Your task to perform on an android device: Search for "razer nari" on newegg.com, select the first entry, add it to the cart, then select checkout. Image 0: 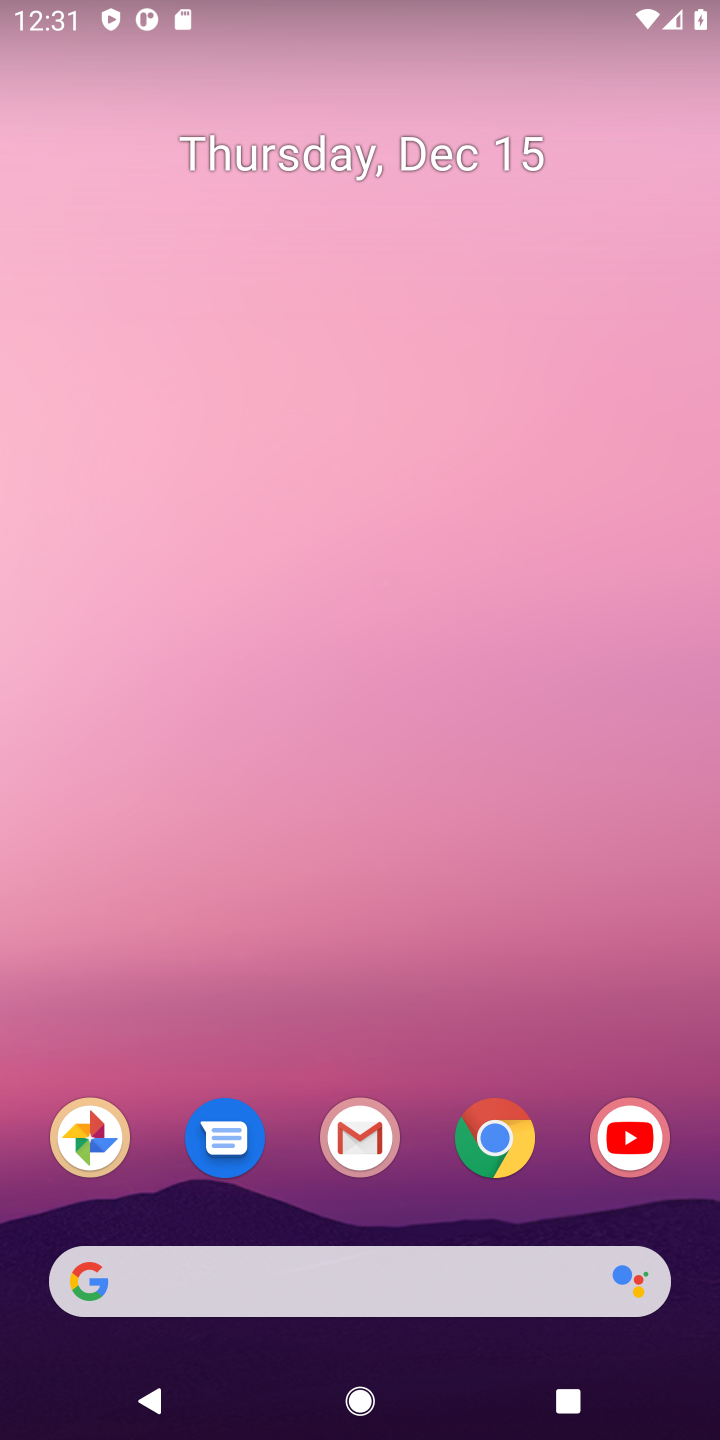
Step 0: click (477, 1167)
Your task to perform on an android device: Search for "razer nari" on newegg.com, select the first entry, add it to the cart, then select checkout. Image 1: 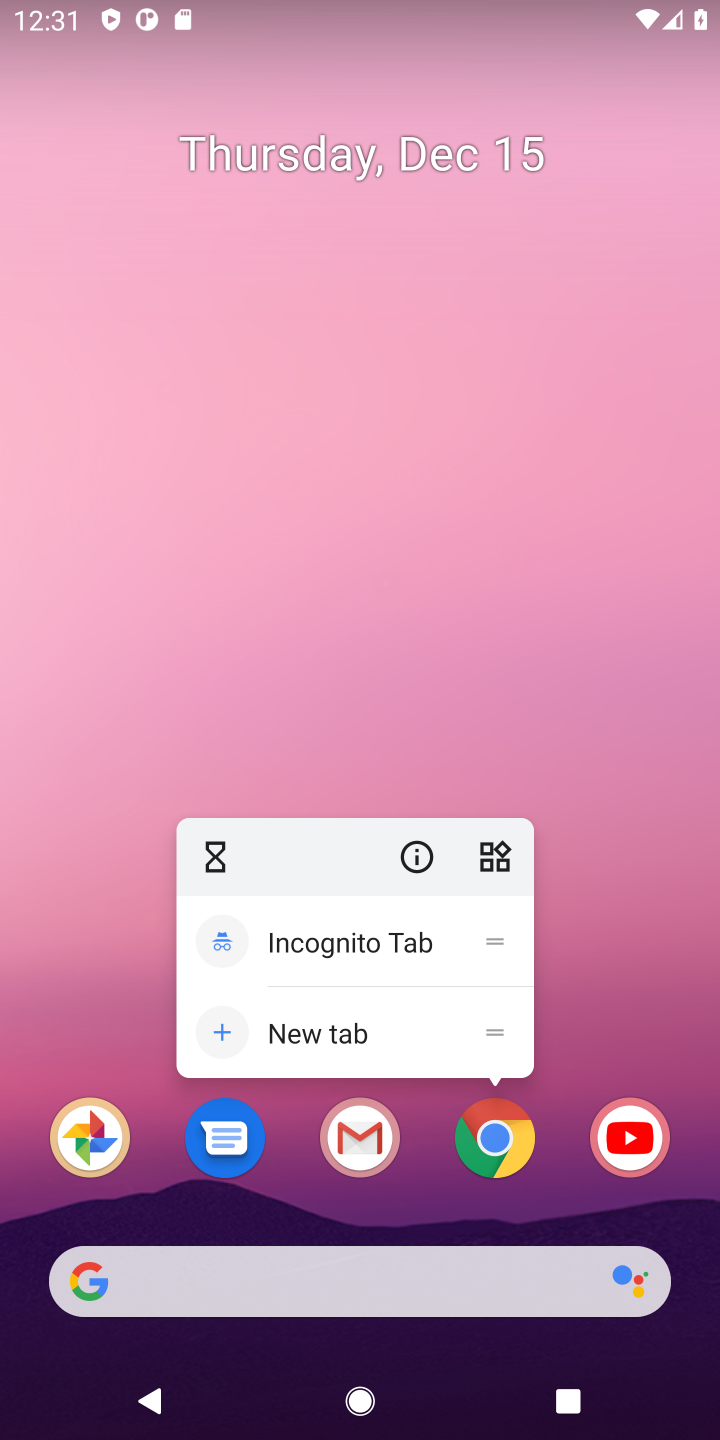
Step 1: click (508, 1156)
Your task to perform on an android device: Search for "razer nari" on newegg.com, select the first entry, add it to the cart, then select checkout. Image 2: 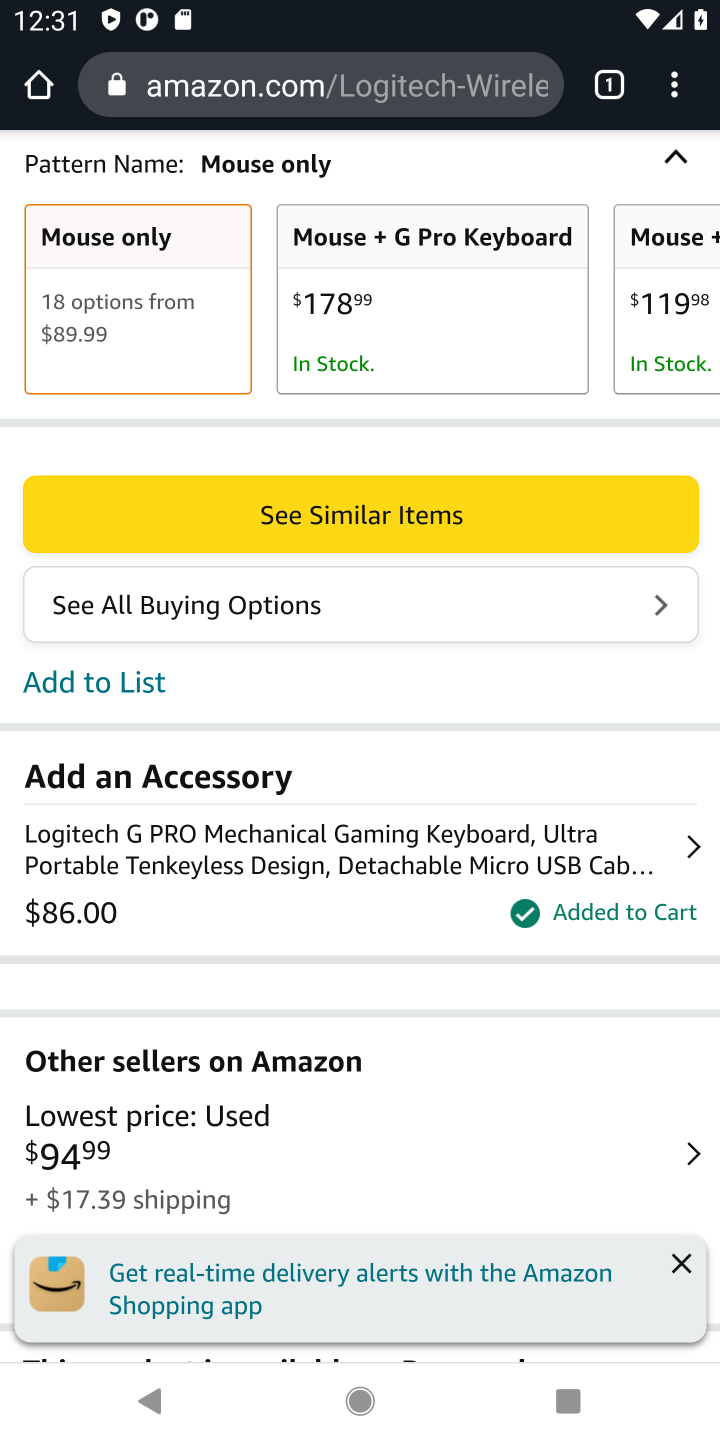
Step 2: click (281, 107)
Your task to perform on an android device: Search for "razer nari" on newegg.com, select the first entry, add it to the cart, then select checkout. Image 3: 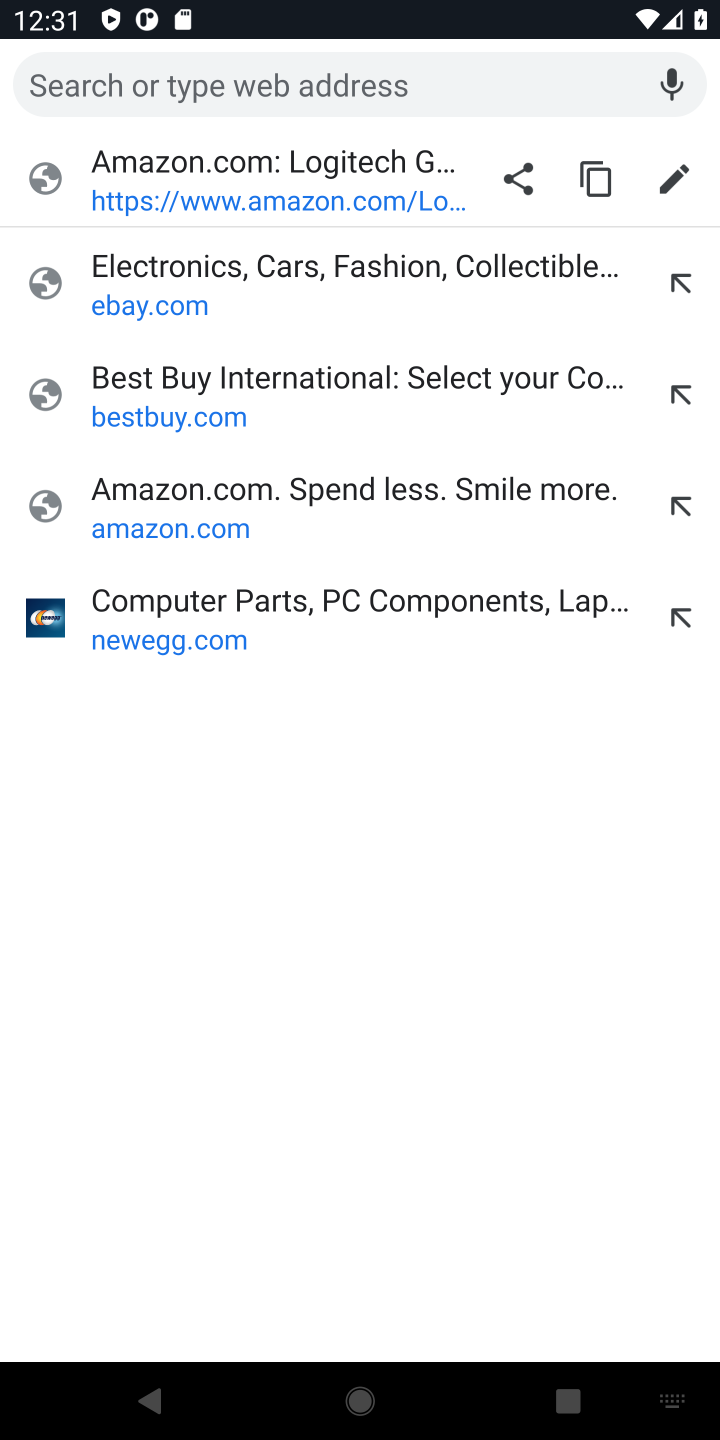
Step 3: type "newegg.com"
Your task to perform on an android device: Search for "razer nari" on newegg.com, select the first entry, add it to the cart, then select checkout. Image 4: 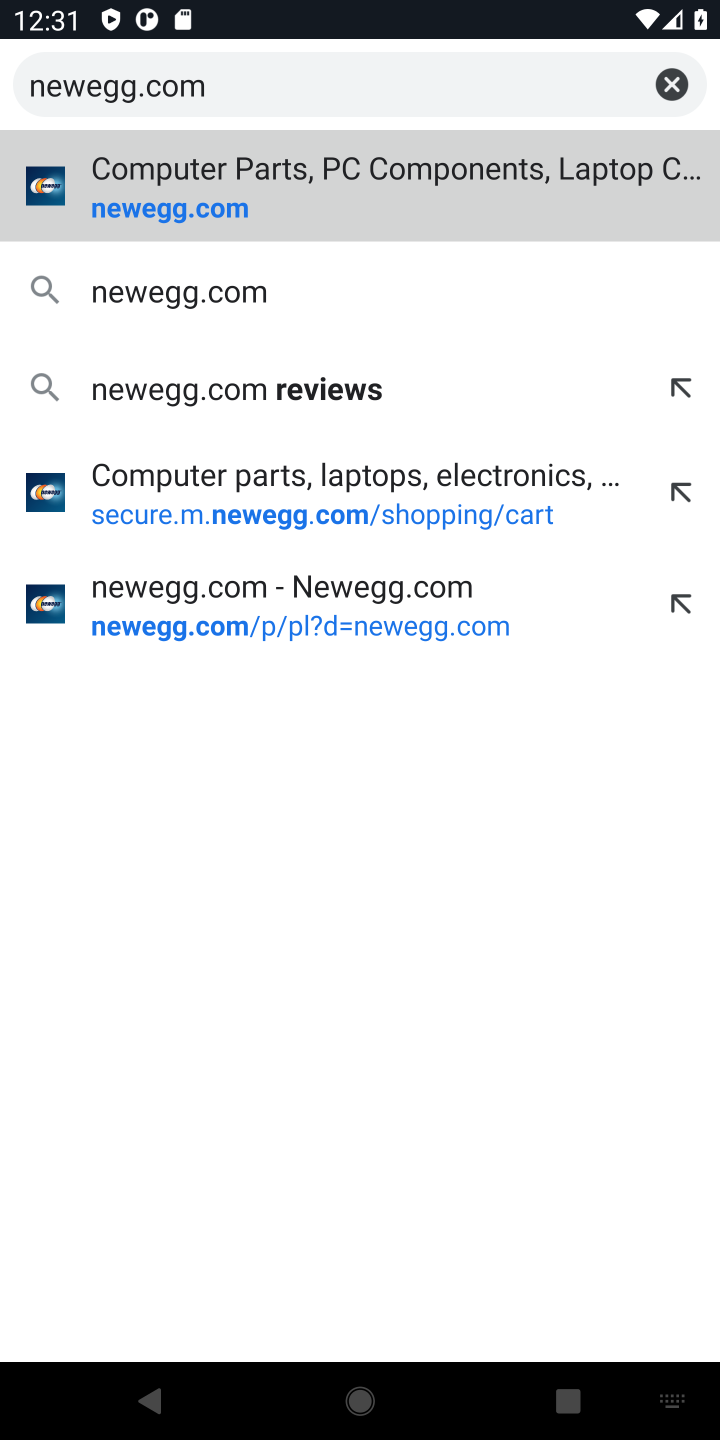
Step 4: press enter
Your task to perform on an android device: Search for "razer nari" on newegg.com, select the first entry, add it to the cart, then select checkout. Image 5: 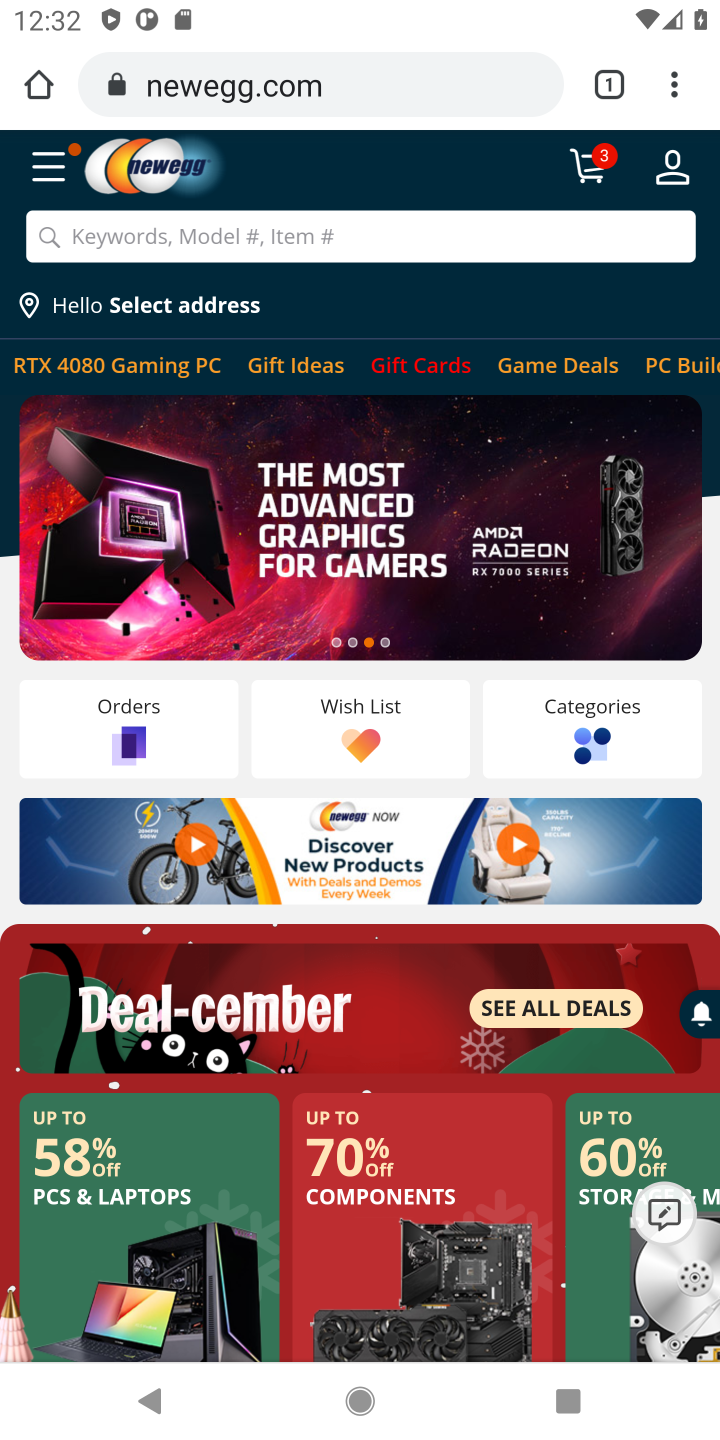
Step 5: click (313, 241)
Your task to perform on an android device: Search for "razer nari" on newegg.com, select the first entry, add it to the cart, then select checkout. Image 6: 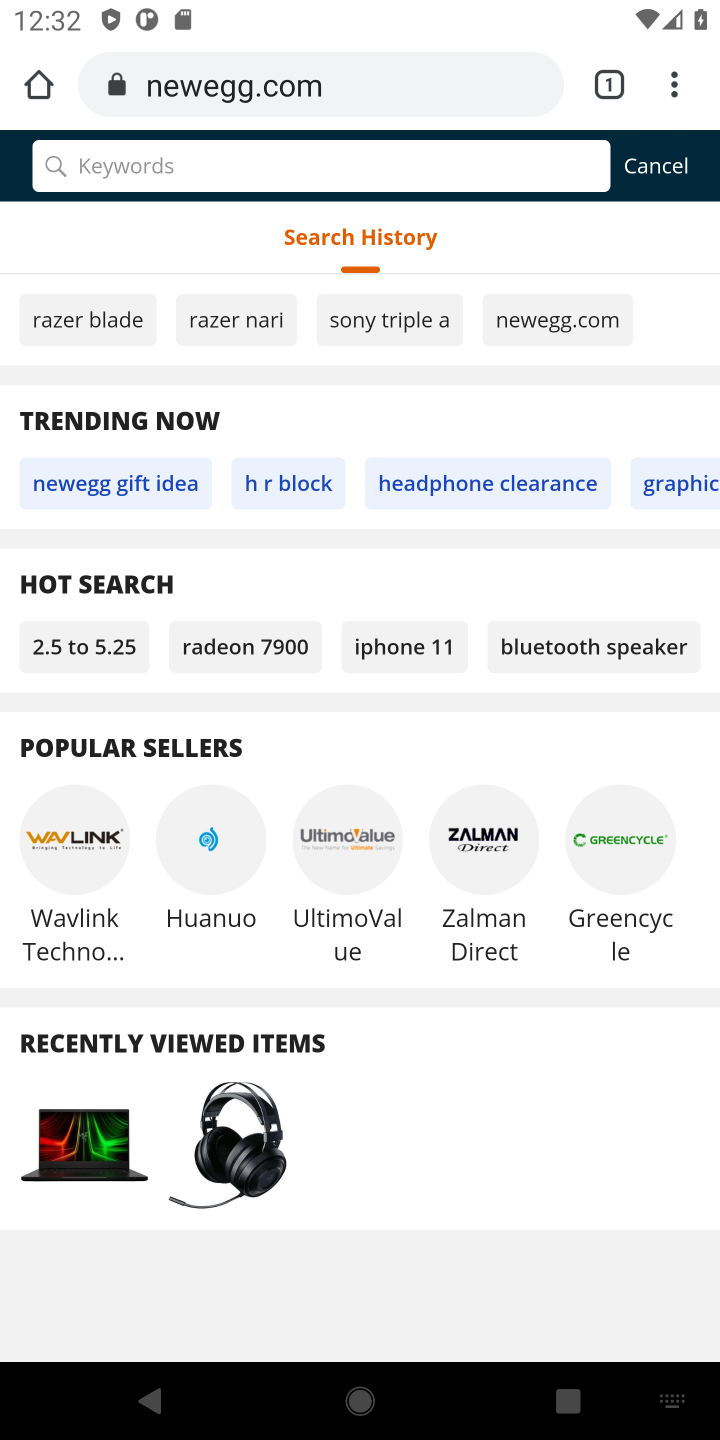
Step 6: type "razer nari"
Your task to perform on an android device: Search for "razer nari" on newegg.com, select the first entry, add it to the cart, then select checkout. Image 7: 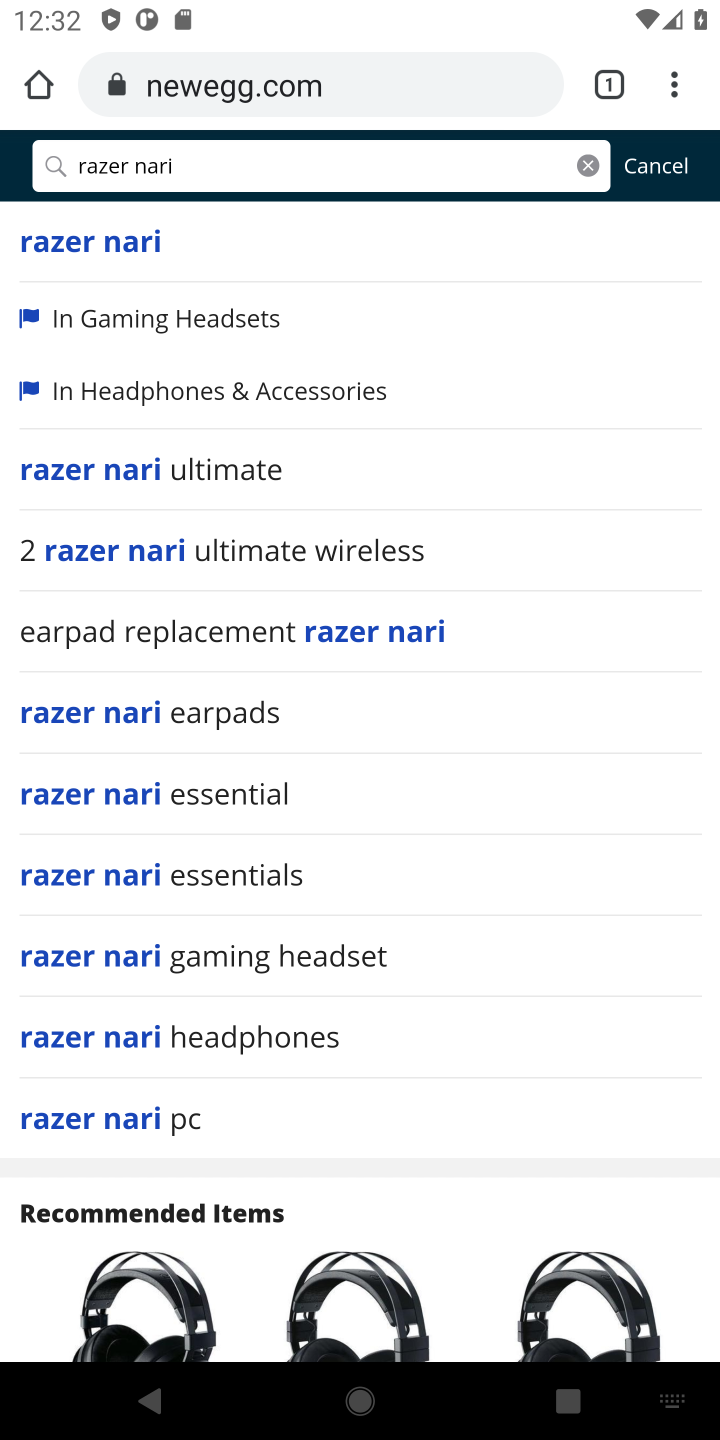
Step 7: press enter
Your task to perform on an android device: Search for "razer nari" on newegg.com, select the first entry, add it to the cart, then select checkout. Image 8: 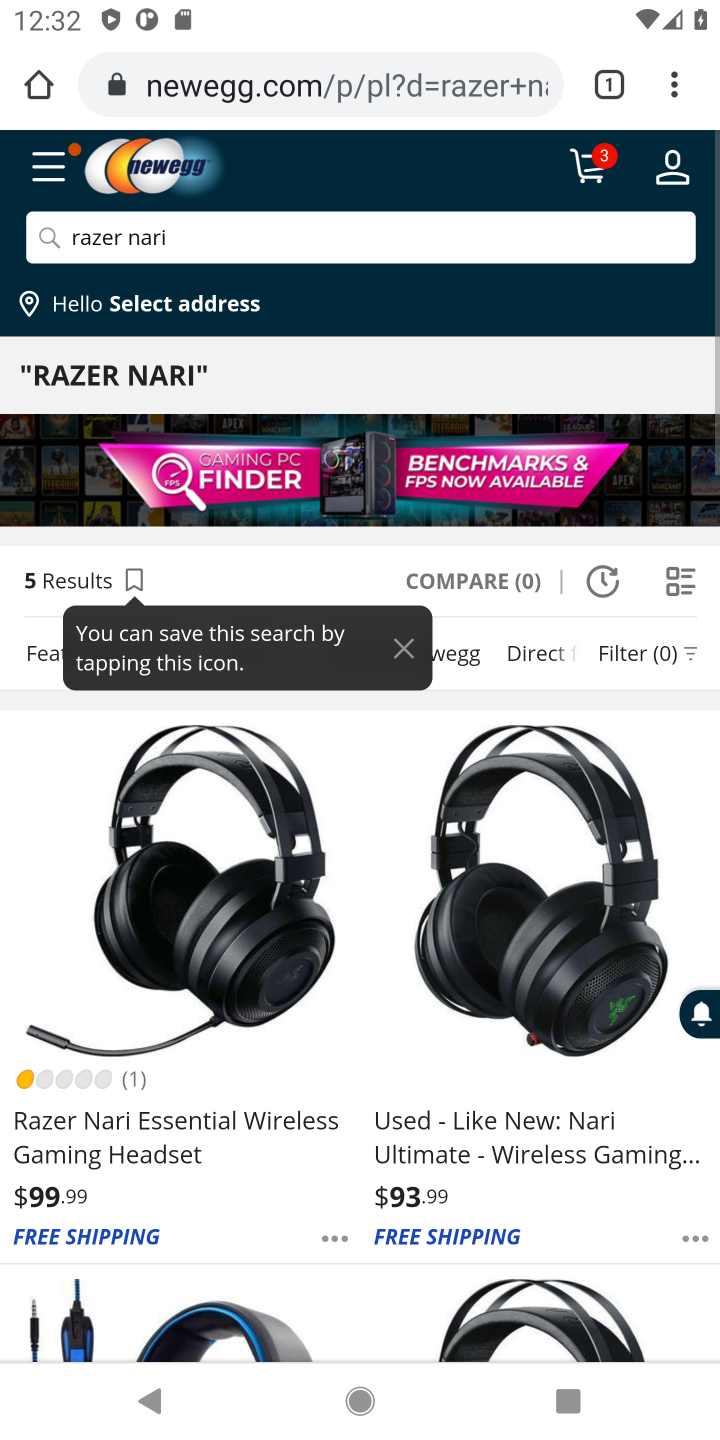
Step 8: click (155, 915)
Your task to perform on an android device: Search for "razer nari" on newegg.com, select the first entry, add it to the cart, then select checkout. Image 9: 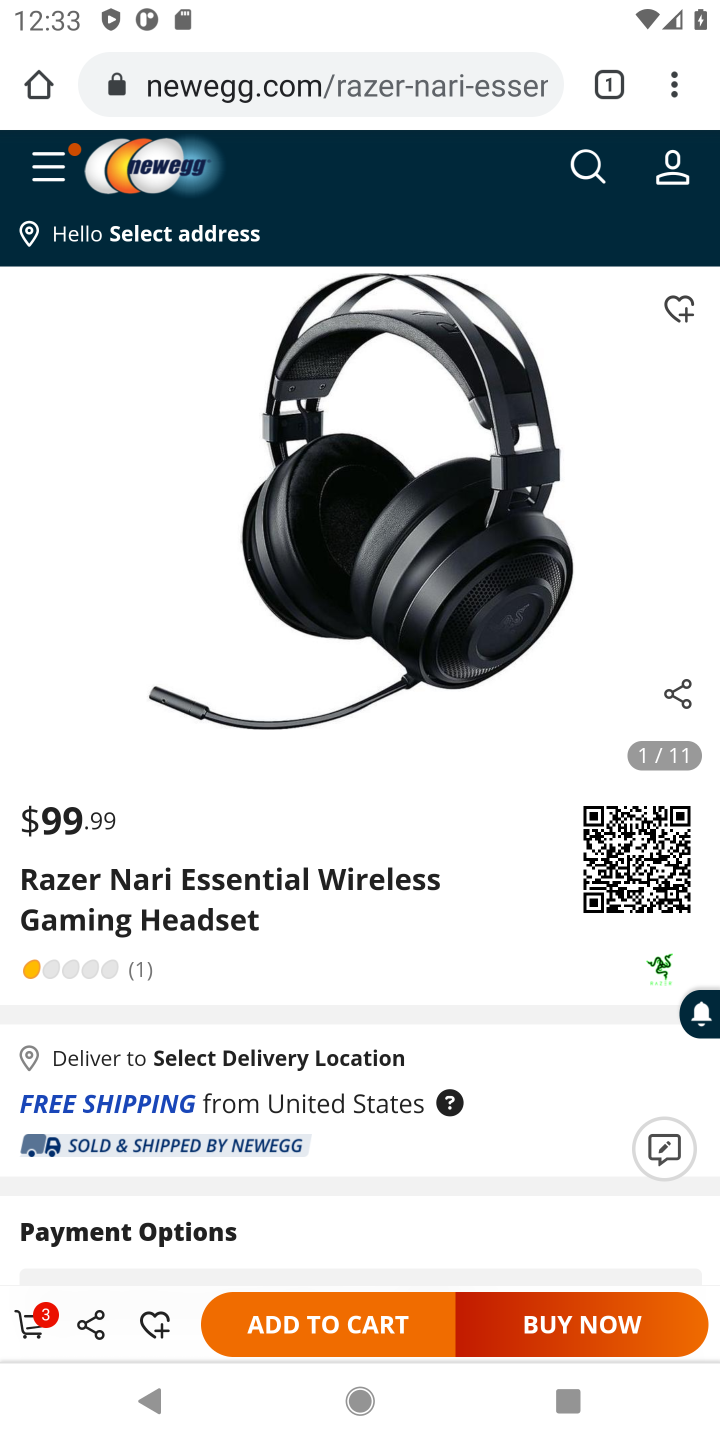
Step 9: click (361, 1344)
Your task to perform on an android device: Search for "razer nari" on newegg.com, select the first entry, add it to the cart, then select checkout. Image 10: 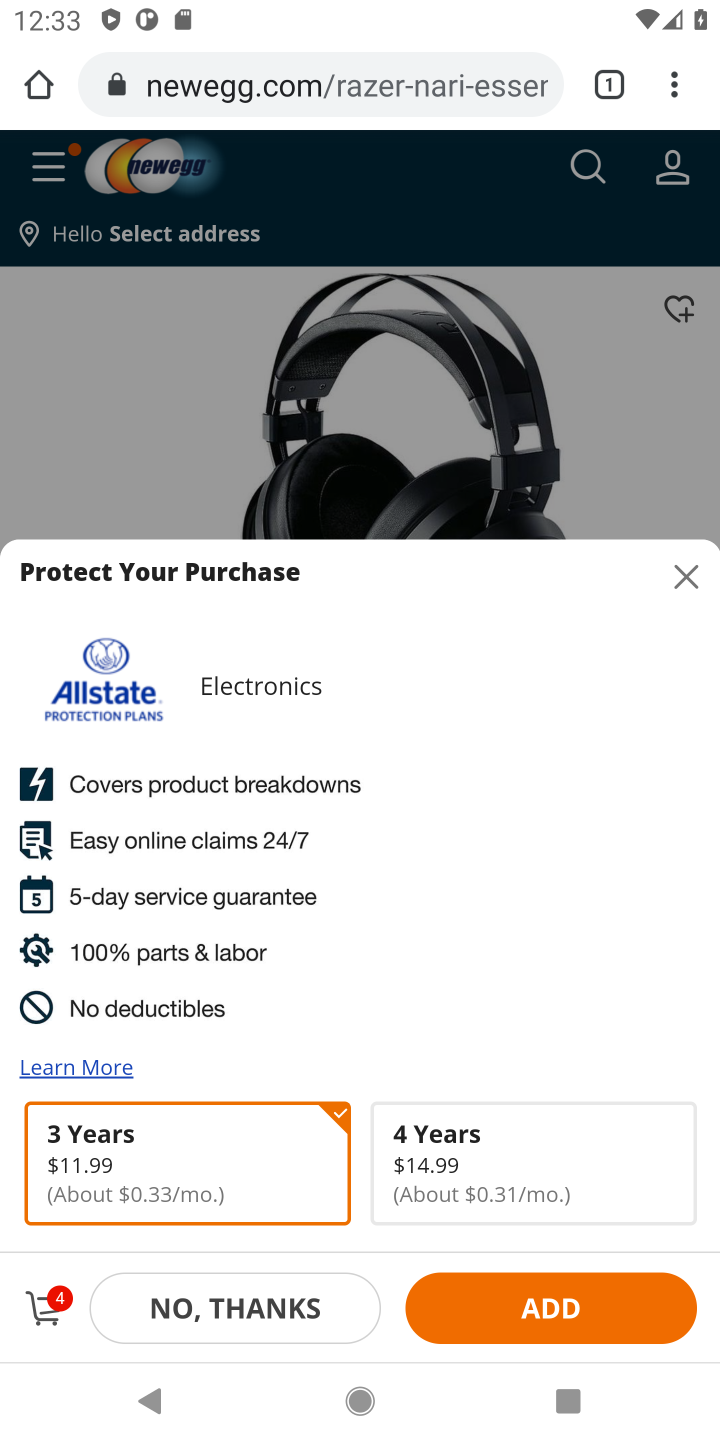
Step 10: click (506, 1333)
Your task to perform on an android device: Search for "razer nari" on newegg.com, select the first entry, add it to the cart, then select checkout. Image 11: 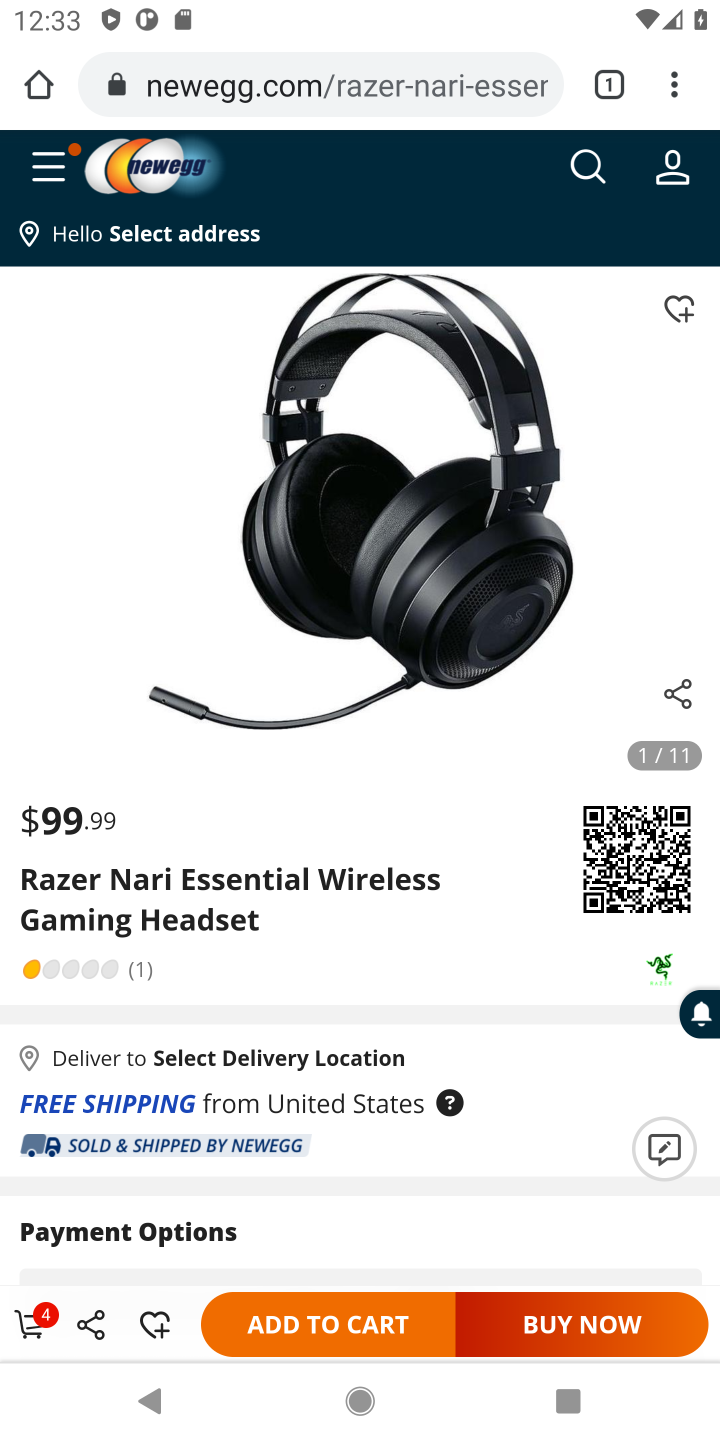
Step 11: click (42, 1337)
Your task to perform on an android device: Search for "razer nari" on newegg.com, select the first entry, add it to the cart, then select checkout. Image 12: 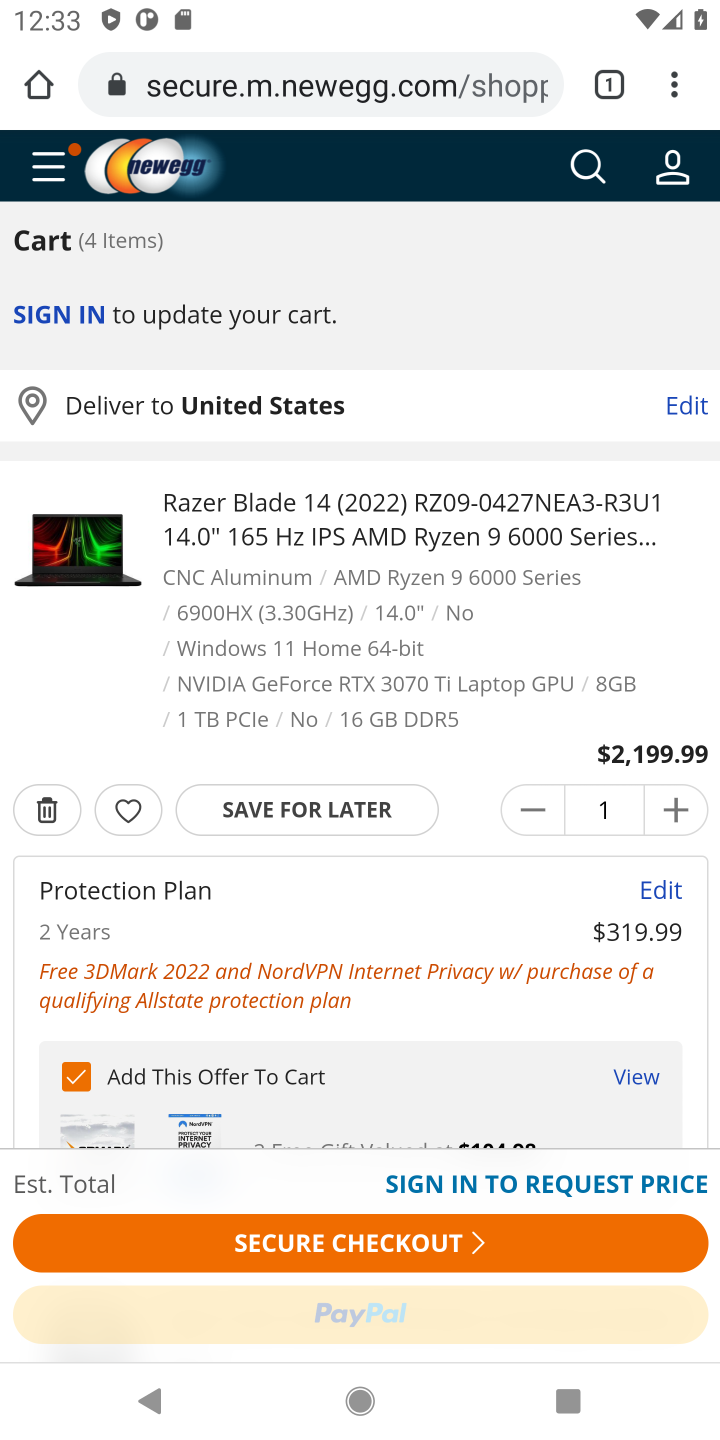
Step 12: drag from (396, 1018) to (412, 396)
Your task to perform on an android device: Search for "razer nari" on newegg.com, select the first entry, add it to the cart, then select checkout. Image 13: 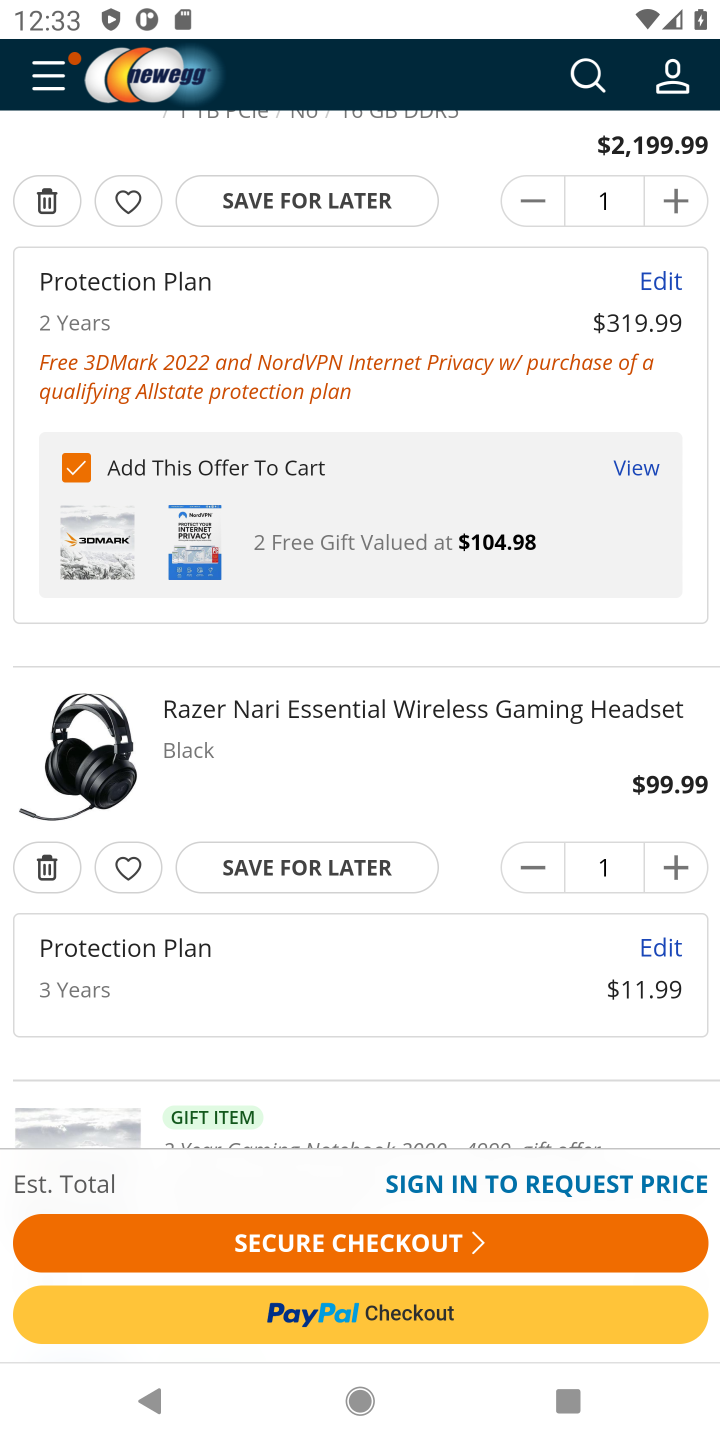
Step 13: click (374, 1254)
Your task to perform on an android device: Search for "razer nari" on newegg.com, select the first entry, add it to the cart, then select checkout. Image 14: 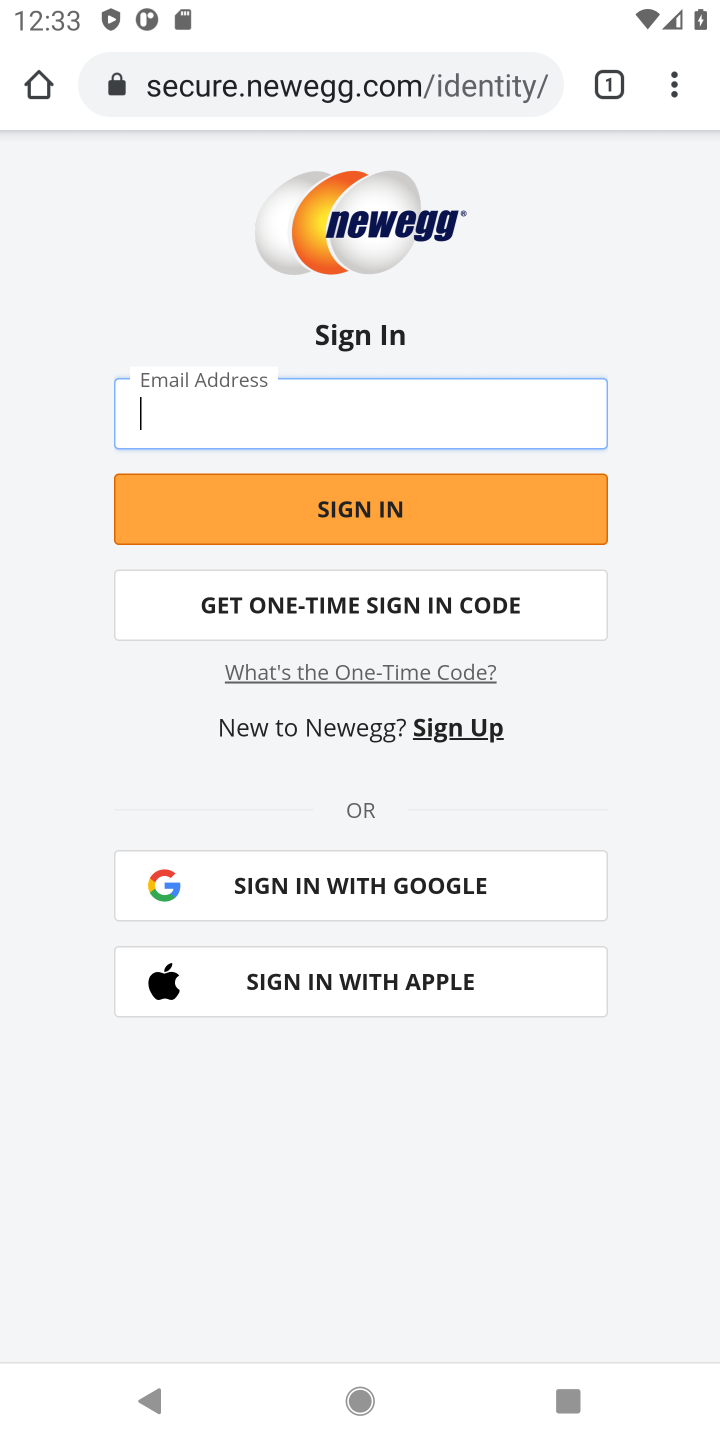
Step 14: task complete